Your task to perform on an android device: Go to sound settings Image 0: 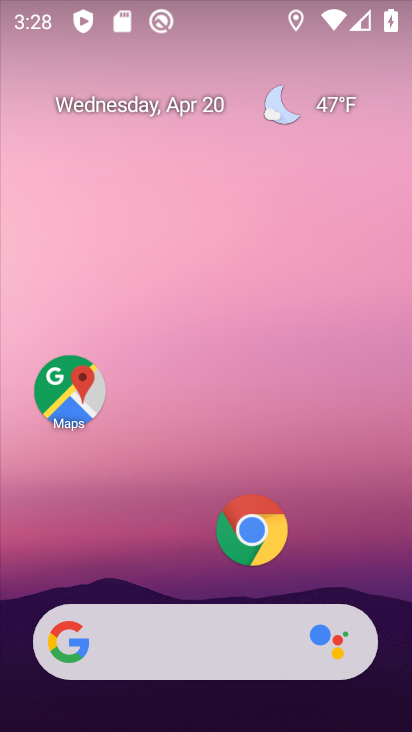
Step 0: drag from (208, 403) to (240, 92)
Your task to perform on an android device: Go to sound settings Image 1: 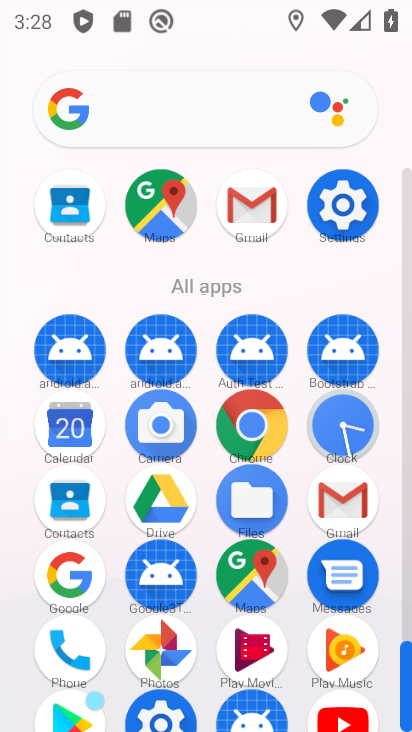
Step 1: click (354, 207)
Your task to perform on an android device: Go to sound settings Image 2: 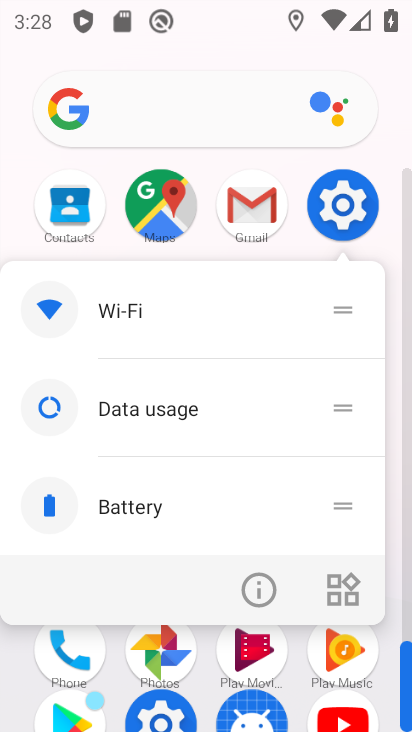
Step 2: click (338, 192)
Your task to perform on an android device: Go to sound settings Image 3: 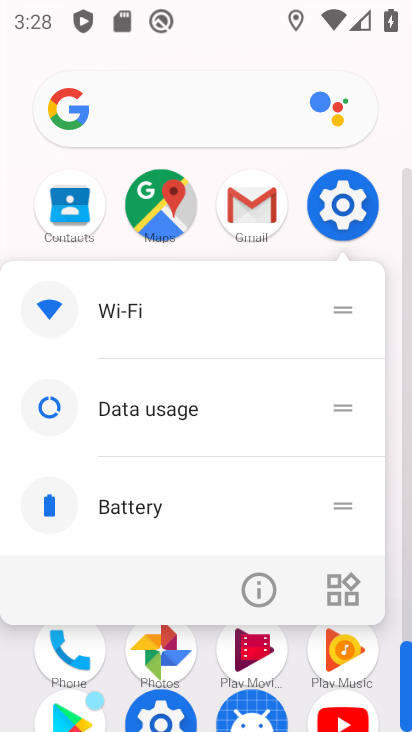
Step 3: click (344, 200)
Your task to perform on an android device: Go to sound settings Image 4: 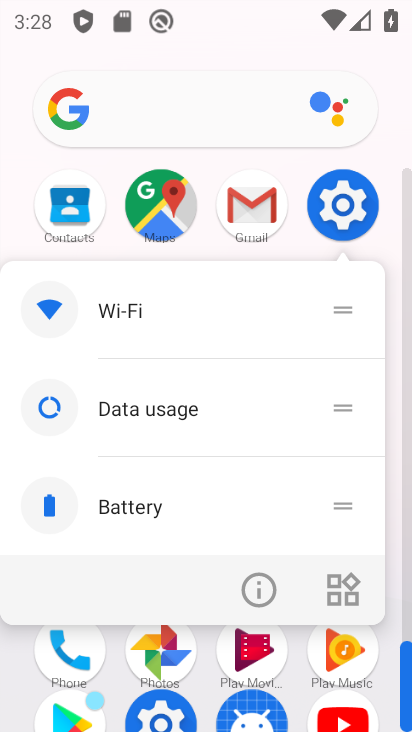
Step 4: click (348, 206)
Your task to perform on an android device: Go to sound settings Image 5: 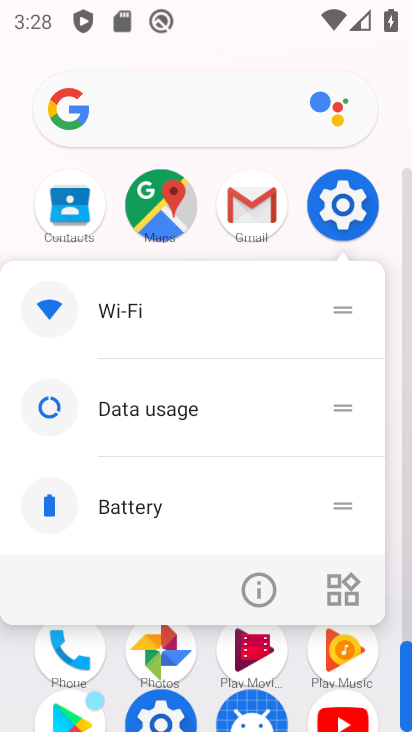
Step 5: click (349, 204)
Your task to perform on an android device: Go to sound settings Image 6: 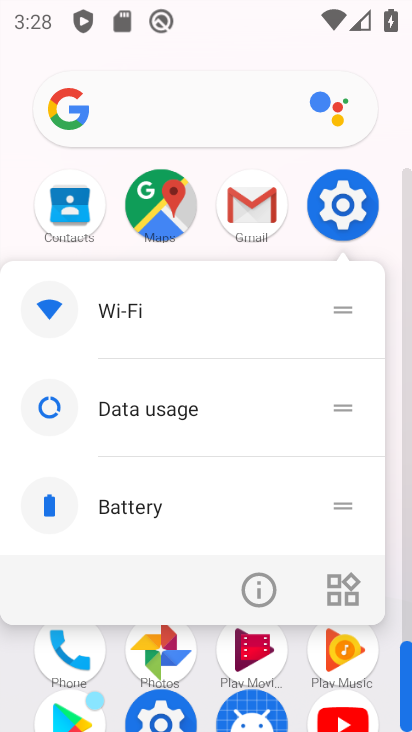
Step 6: click (351, 201)
Your task to perform on an android device: Go to sound settings Image 7: 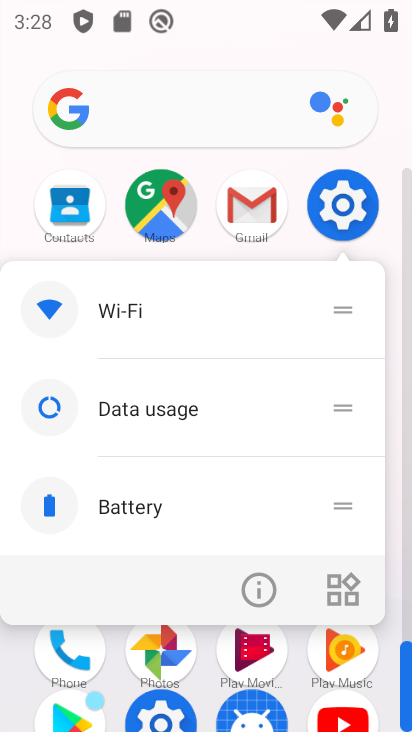
Step 7: click (334, 211)
Your task to perform on an android device: Go to sound settings Image 8: 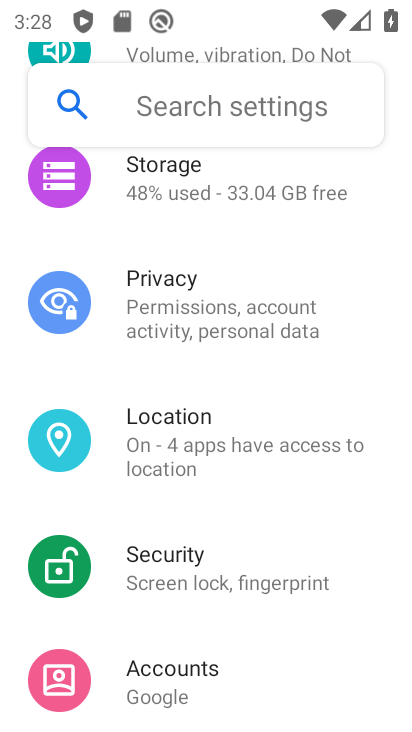
Step 8: drag from (200, 598) to (312, 224)
Your task to perform on an android device: Go to sound settings Image 9: 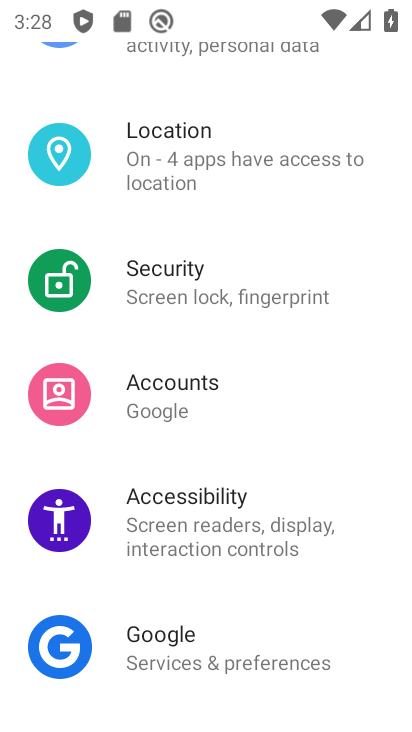
Step 9: drag from (192, 178) to (159, 685)
Your task to perform on an android device: Go to sound settings Image 10: 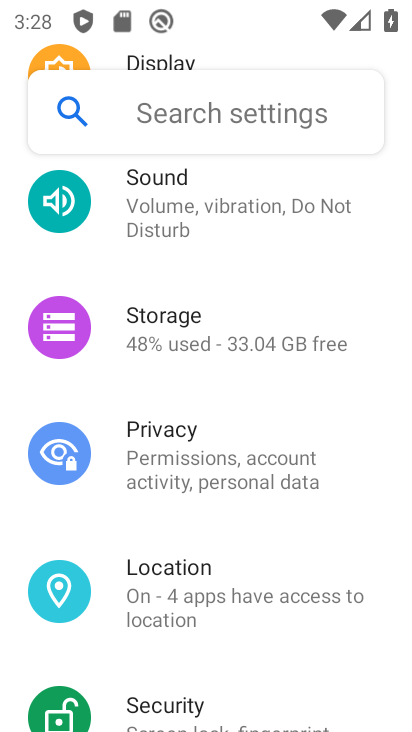
Step 10: click (177, 197)
Your task to perform on an android device: Go to sound settings Image 11: 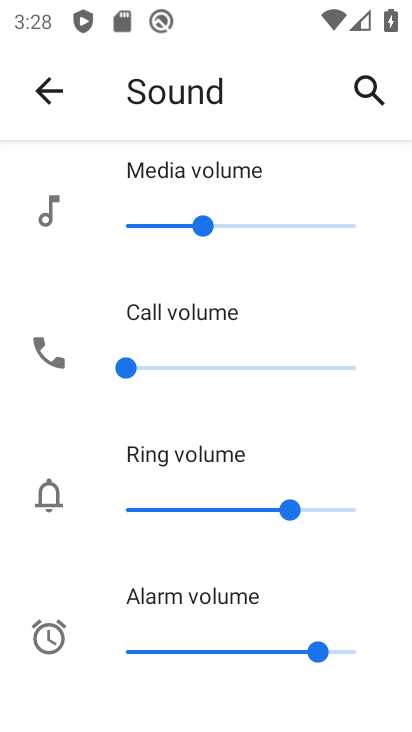
Step 11: task complete